Your task to perform on an android device: change keyboard looks Image 0: 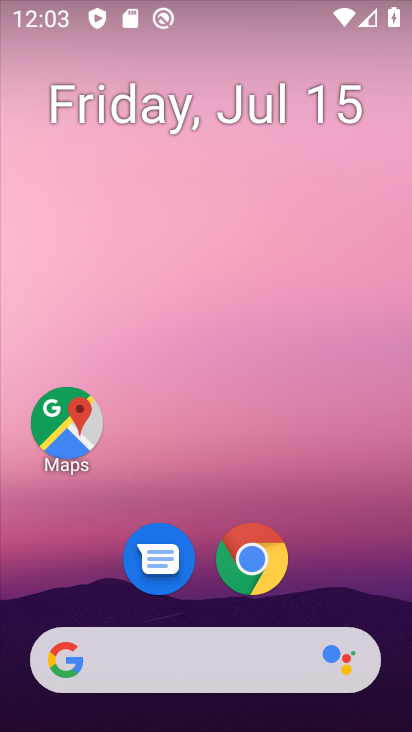
Step 0: drag from (344, 582) to (362, 107)
Your task to perform on an android device: change keyboard looks Image 1: 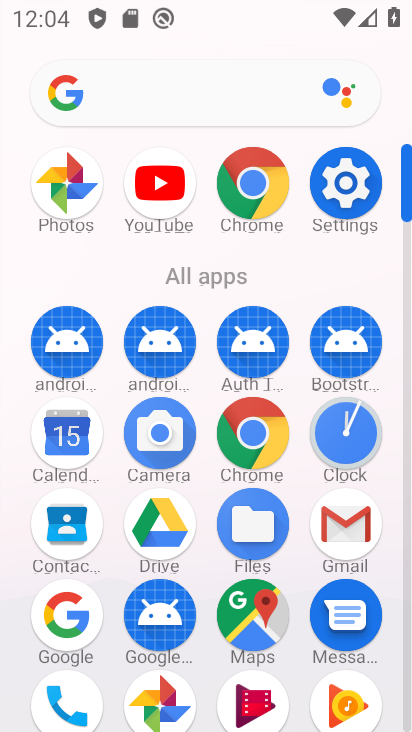
Step 1: click (347, 208)
Your task to perform on an android device: change keyboard looks Image 2: 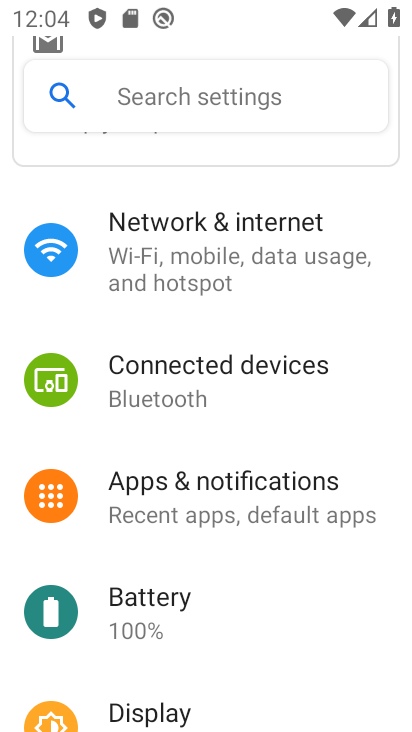
Step 2: drag from (372, 295) to (375, 407)
Your task to perform on an android device: change keyboard looks Image 3: 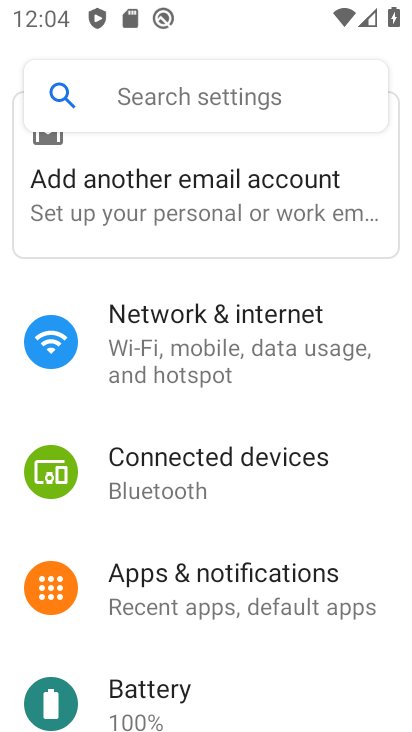
Step 3: drag from (375, 305) to (376, 491)
Your task to perform on an android device: change keyboard looks Image 4: 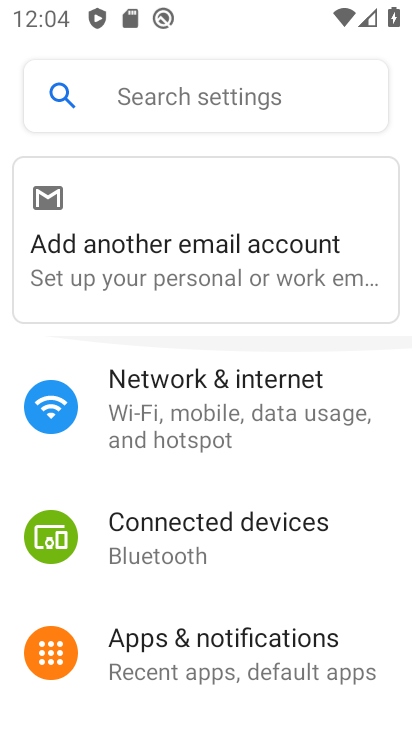
Step 4: drag from (361, 528) to (361, 421)
Your task to perform on an android device: change keyboard looks Image 5: 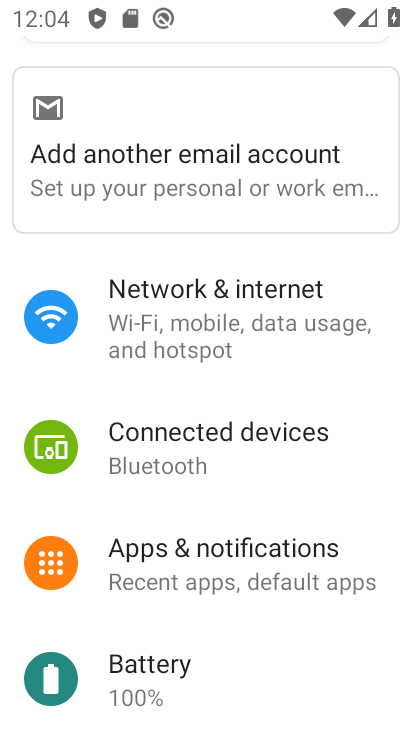
Step 5: drag from (359, 539) to (363, 436)
Your task to perform on an android device: change keyboard looks Image 6: 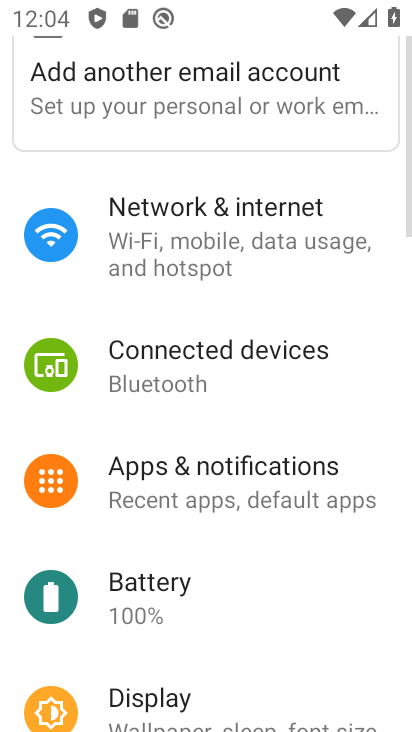
Step 6: drag from (344, 571) to (344, 456)
Your task to perform on an android device: change keyboard looks Image 7: 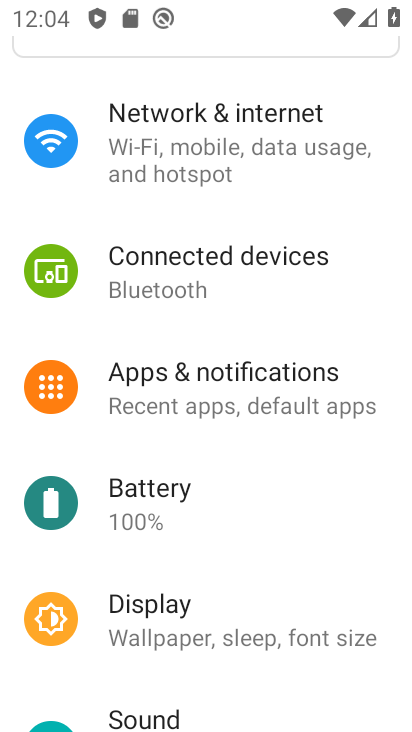
Step 7: drag from (343, 547) to (350, 470)
Your task to perform on an android device: change keyboard looks Image 8: 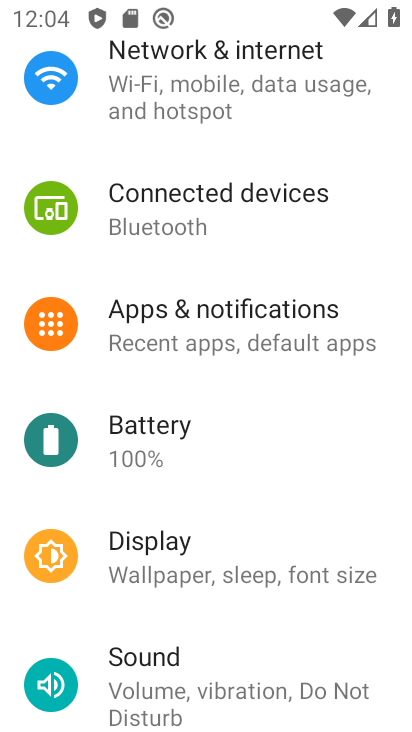
Step 8: drag from (320, 497) to (336, 400)
Your task to perform on an android device: change keyboard looks Image 9: 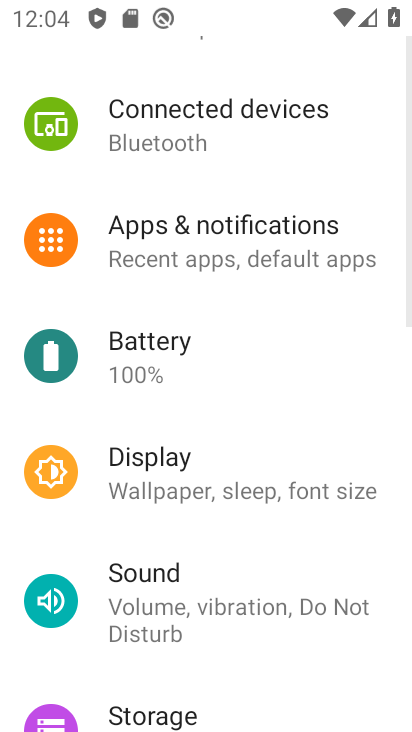
Step 9: drag from (334, 547) to (344, 430)
Your task to perform on an android device: change keyboard looks Image 10: 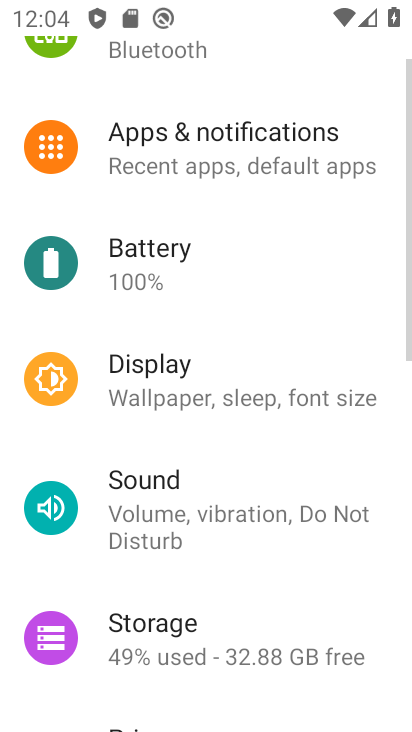
Step 10: drag from (327, 579) to (330, 306)
Your task to perform on an android device: change keyboard looks Image 11: 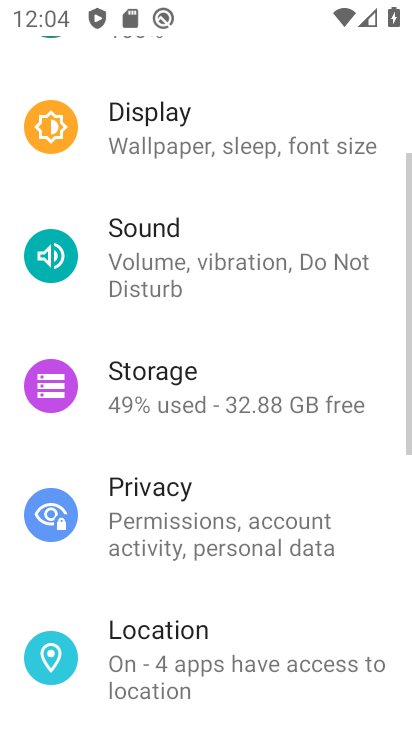
Step 11: drag from (343, 491) to (341, 336)
Your task to perform on an android device: change keyboard looks Image 12: 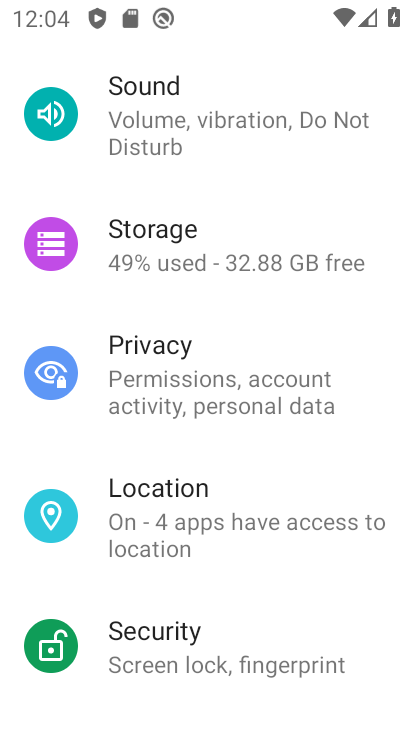
Step 12: drag from (342, 572) to (343, 369)
Your task to perform on an android device: change keyboard looks Image 13: 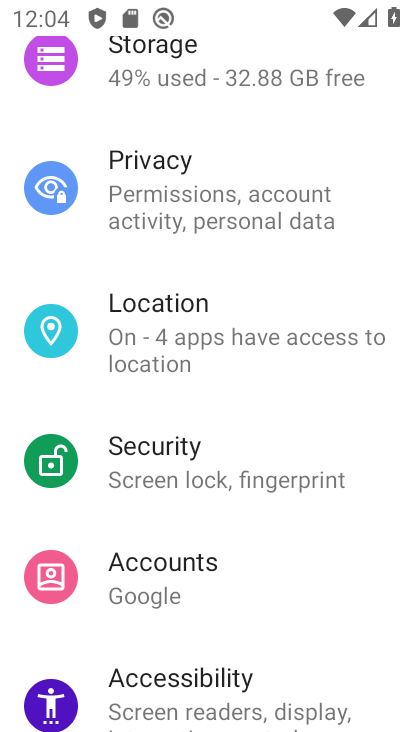
Step 13: drag from (331, 553) to (333, 443)
Your task to perform on an android device: change keyboard looks Image 14: 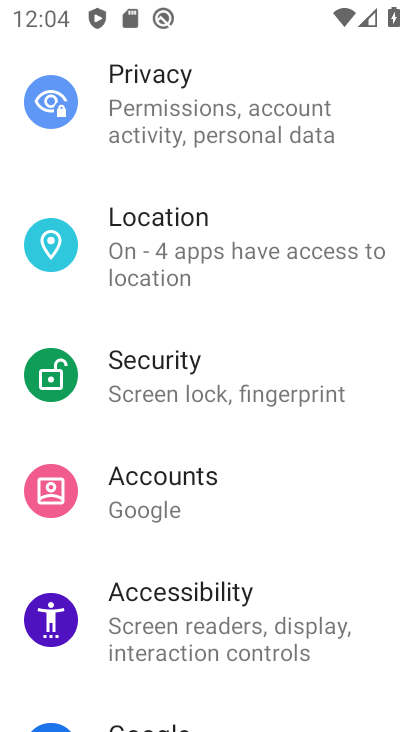
Step 14: drag from (345, 556) to (360, 278)
Your task to perform on an android device: change keyboard looks Image 15: 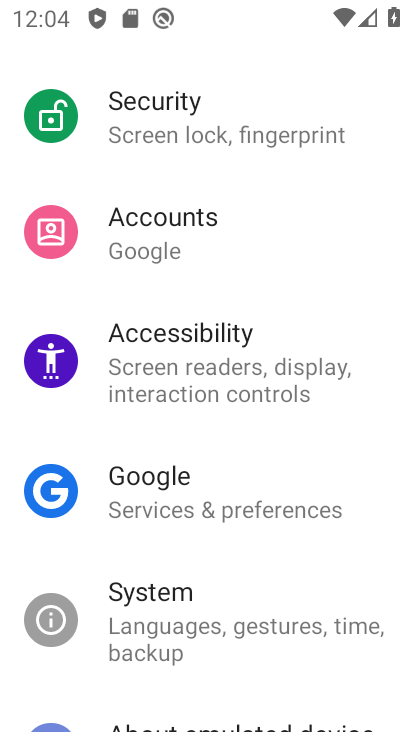
Step 15: drag from (362, 555) to (365, 426)
Your task to perform on an android device: change keyboard looks Image 16: 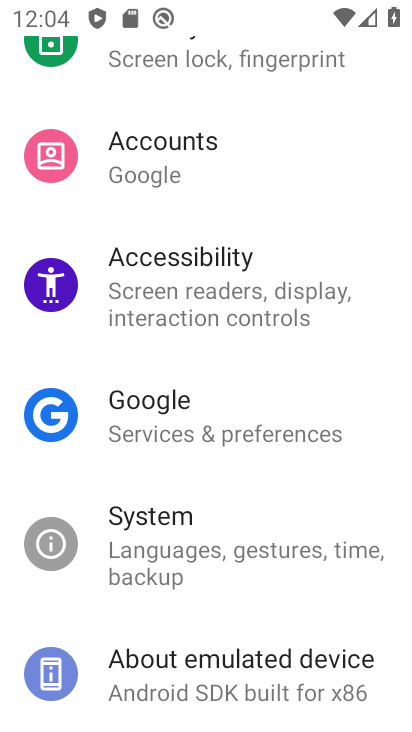
Step 16: click (332, 545)
Your task to perform on an android device: change keyboard looks Image 17: 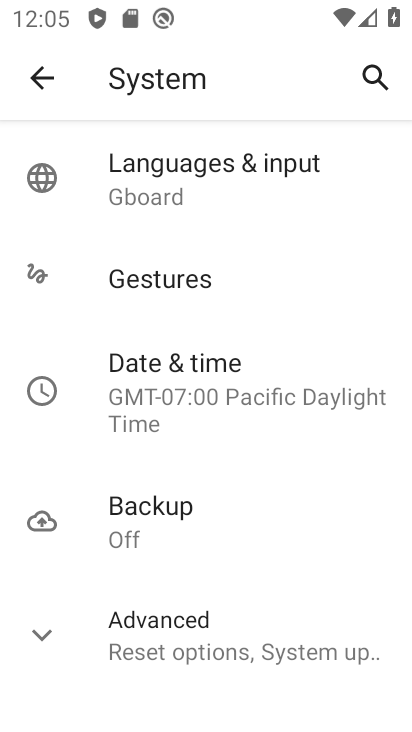
Step 17: click (202, 169)
Your task to perform on an android device: change keyboard looks Image 18: 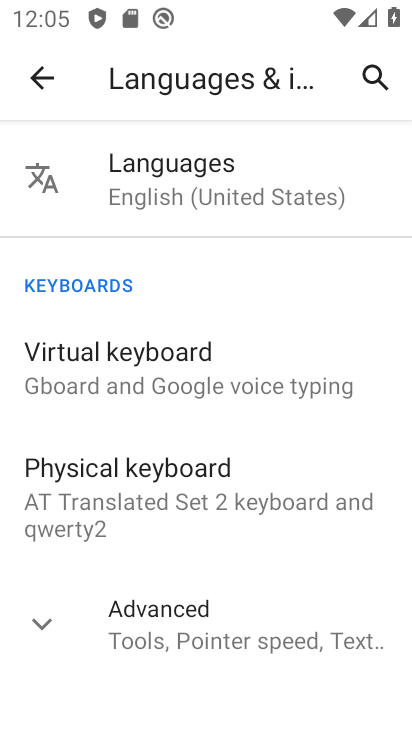
Step 18: click (171, 361)
Your task to perform on an android device: change keyboard looks Image 19: 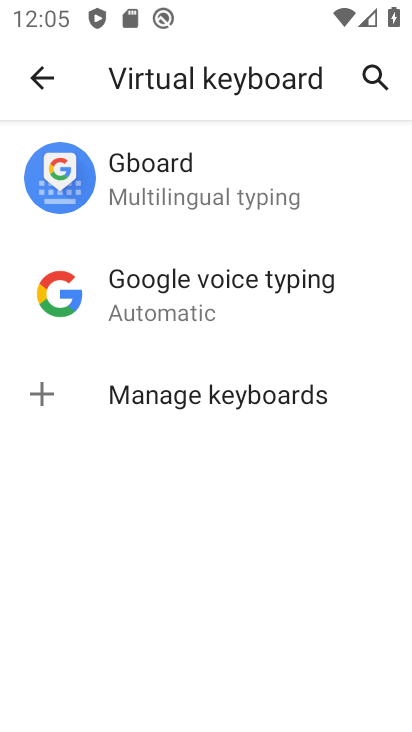
Step 19: click (178, 197)
Your task to perform on an android device: change keyboard looks Image 20: 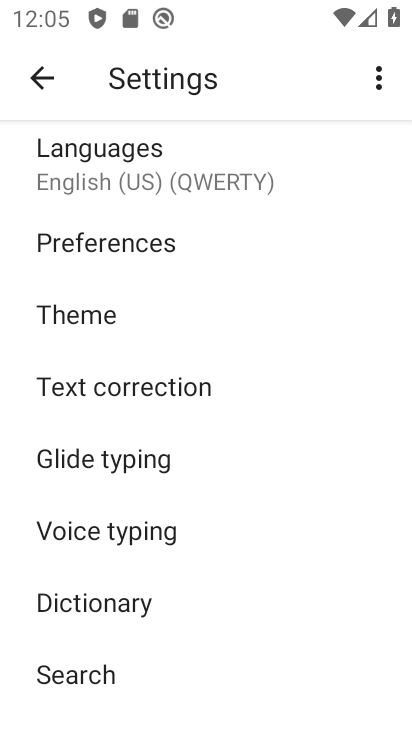
Step 20: click (144, 327)
Your task to perform on an android device: change keyboard looks Image 21: 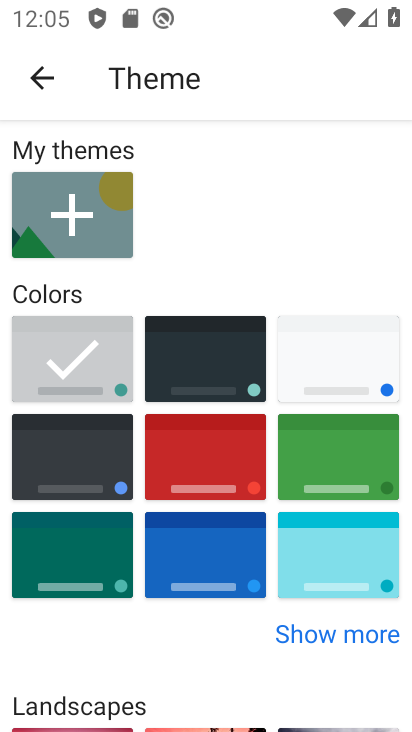
Step 21: click (211, 366)
Your task to perform on an android device: change keyboard looks Image 22: 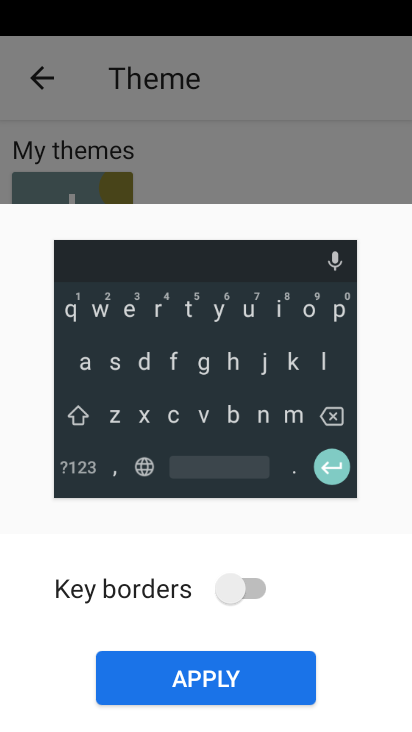
Step 22: click (251, 684)
Your task to perform on an android device: change keyboard looks Image 23: 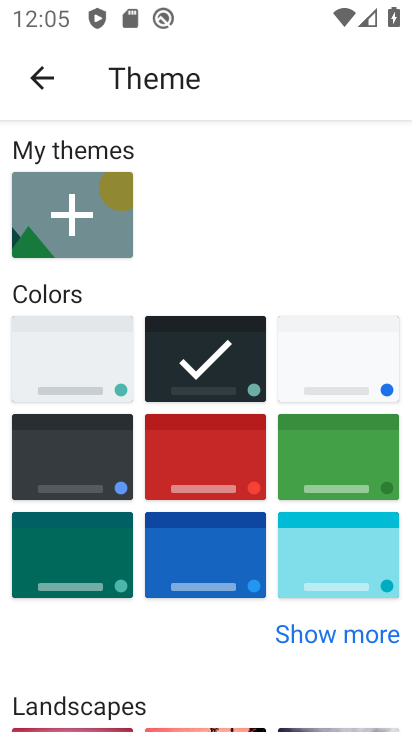
Step 23: task complete